Your task to perform on an android device: open the mobile data screen to see how much data has been used Image 0: 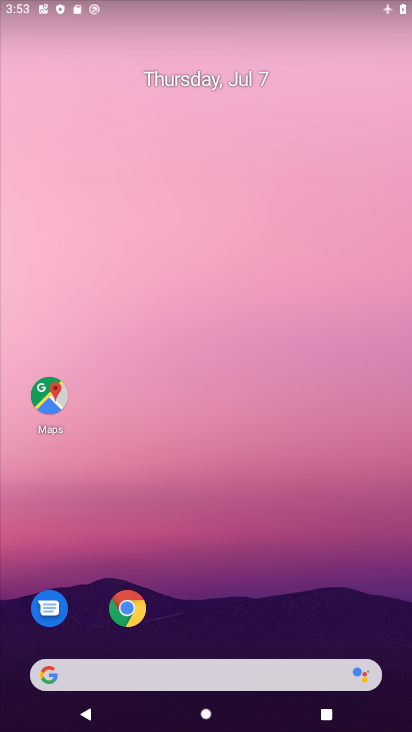
Step 0: drag from (251, 616) to (161, 219)
Your task to perform on an android device: open the mobile data screen to see how much data has been used Image 1: 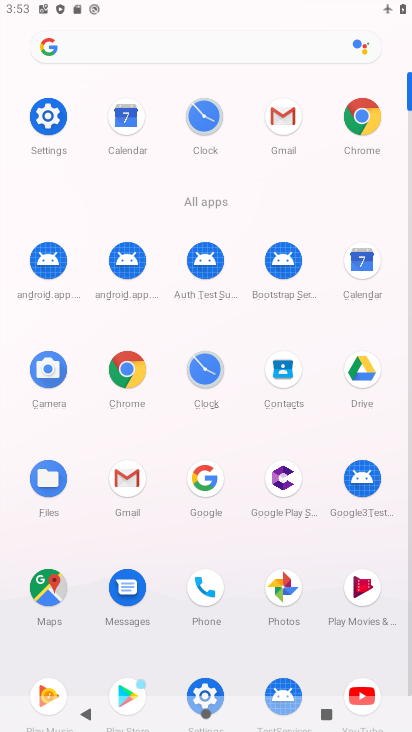
Step 1: click (41, 119)
Your task to perform on an android device: open the mobile data screen to see how much data has been used Image 2: 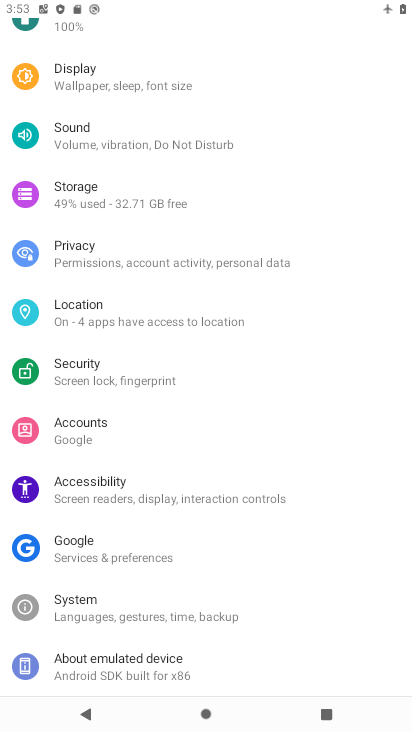
Step 2: drag from (137, 118) to (137, 381)
Your task to perform on an android device: open the mobile data screen to see how much data has been used Image 3: 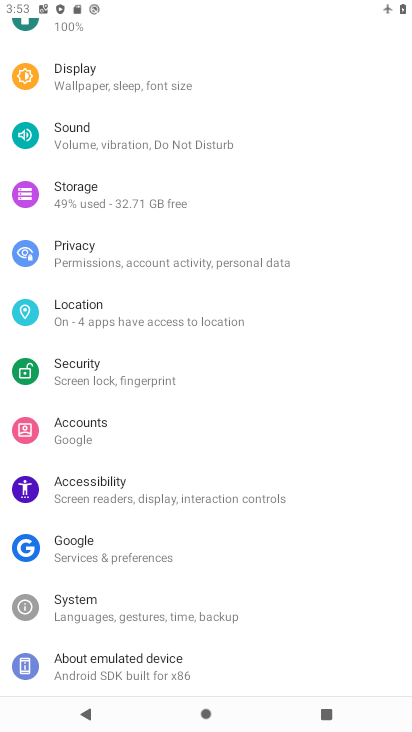
Step 3: drag from (200, 58) to (175, 588)
Your task to perform on an android device: open the mobile data screen to see how much data has been used Image 4: 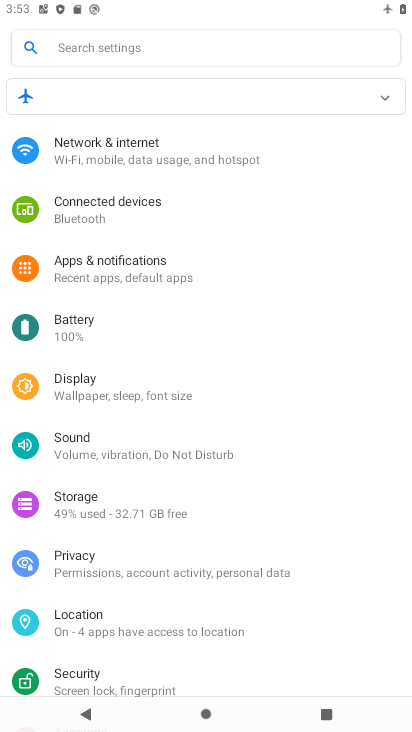
Step 4: click (195, 157)
Your task to perform on an android device: open the mobile data screen to see how much data has been used Image 5: 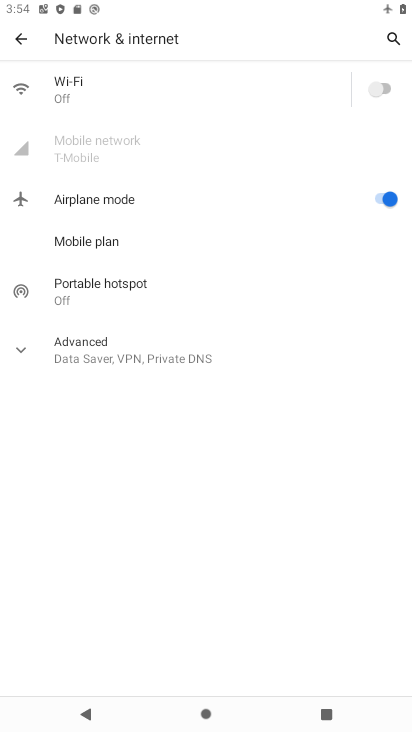
Step 5: task complete